Your task to perform on an android device: Go to privacy settings Image 0: 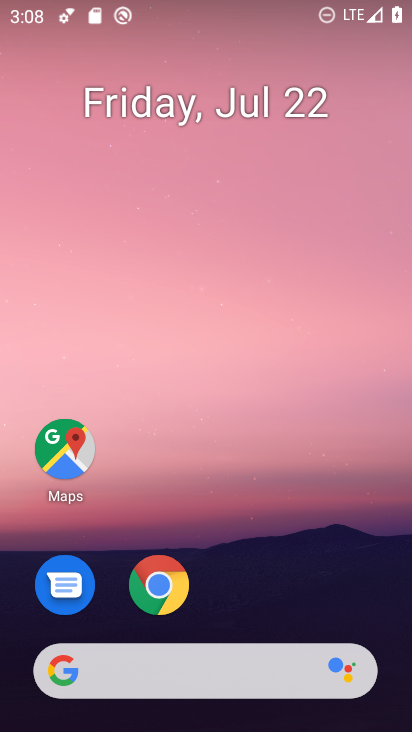
Step 0: drag from (257, 577) to (258, 40)
Your task to perform on an android device: Go to privacy settings Image 1: 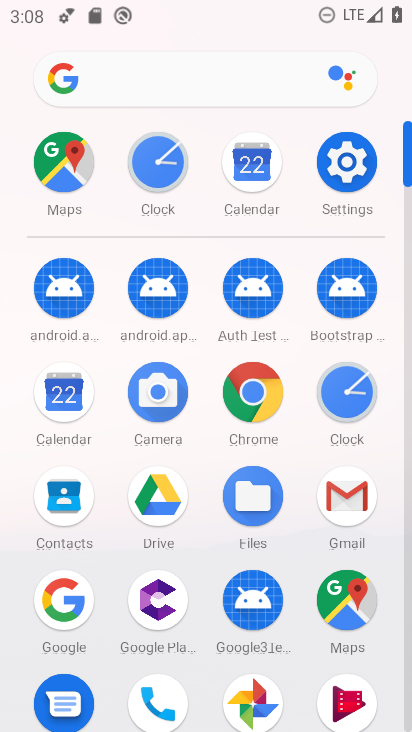
Step 1: click (342, 165)
Your task to perform on an android device: Go to privacy settings Image 2: 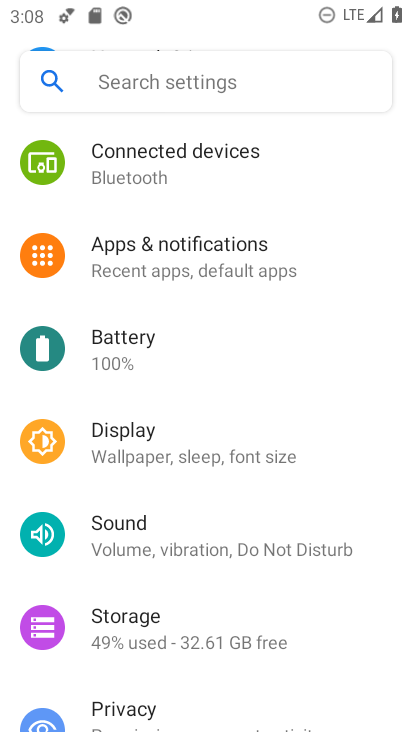
Step 2: drag from (220, 608) to (255, 278)
Your task to perform on an android device: Go to privacy settings Image 3: 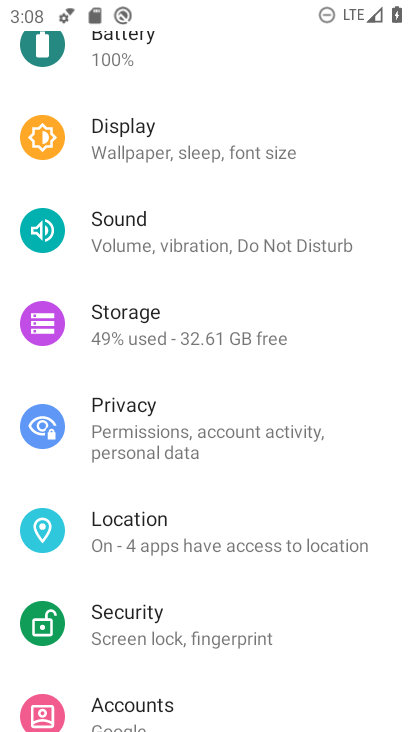
Step 3: click (221, 428)
Your task to perform on an android device: Go to privacy settings Image 4: 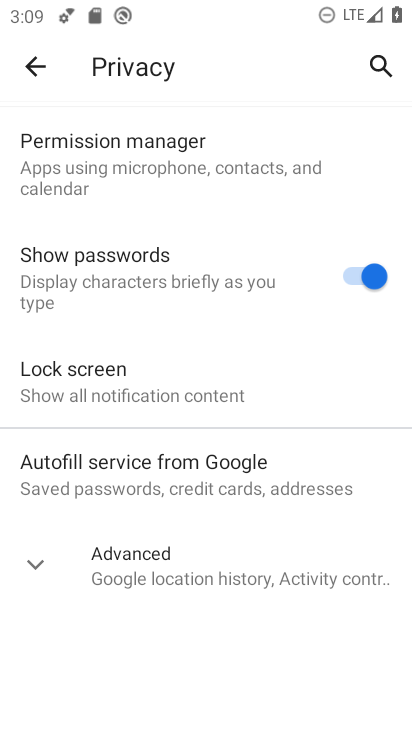
Step 4: task complete